Your task to perform on an android device: create a new album in the google photos Image 0: 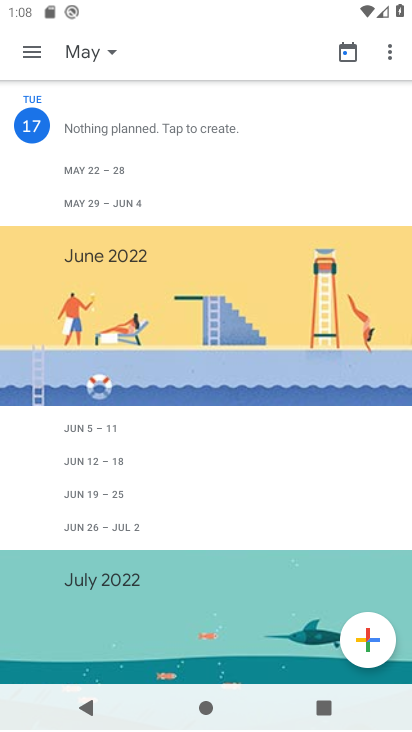
Step 0: press home button
Your task to perform on an android device: create a new album in the google photos Image 1: 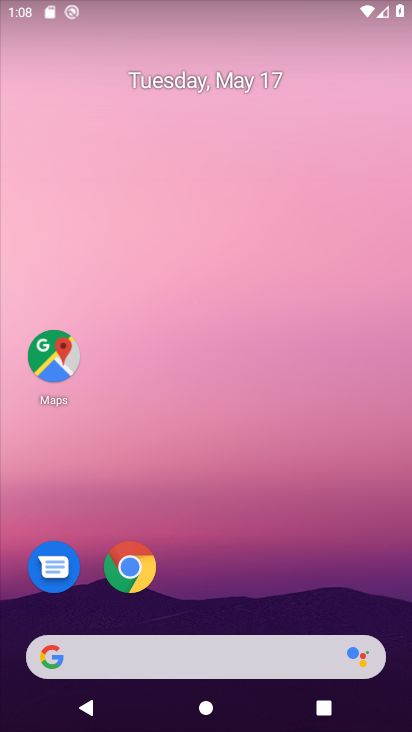
Step 1: drag from (215, 492) to (257, 108)
Your task to perform on an android device: create a new album in the google photos Image 2: 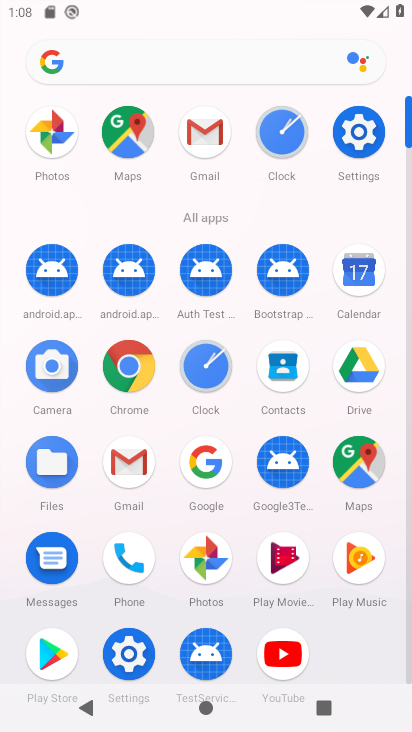
Step 2: click (208, 573)
Your task to perform on an android device: create a new album in the google photos Image 3: 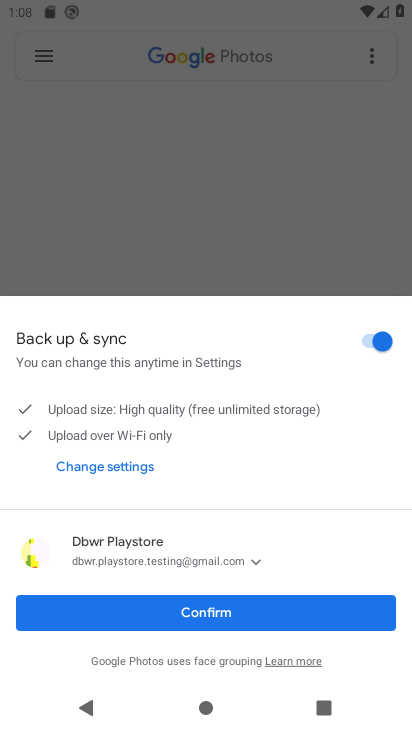
Step 3: click (196, 629)
Your task to perform on an android device: create a new album in the google photos Image 4: 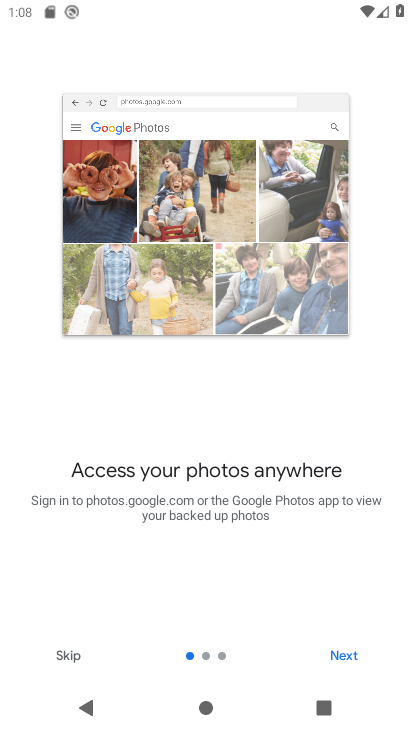
Step 4: click (353, 656)
Your task to perform on an android device: create a new album in the google photos Image 5: 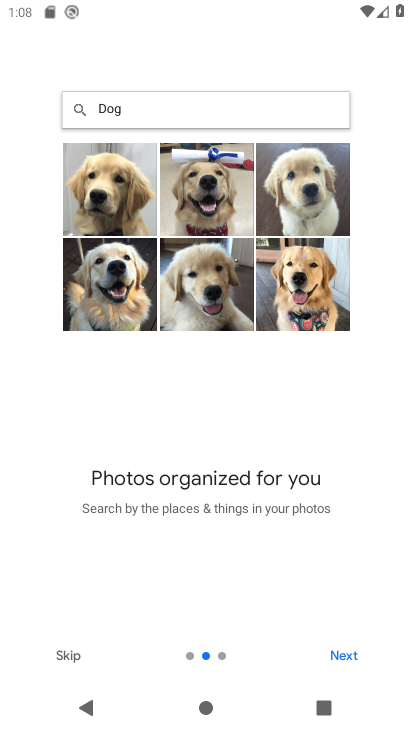
Step 5: click (353, 656)
Your task to perform on an android device: create a new album in the google photos Image 6: 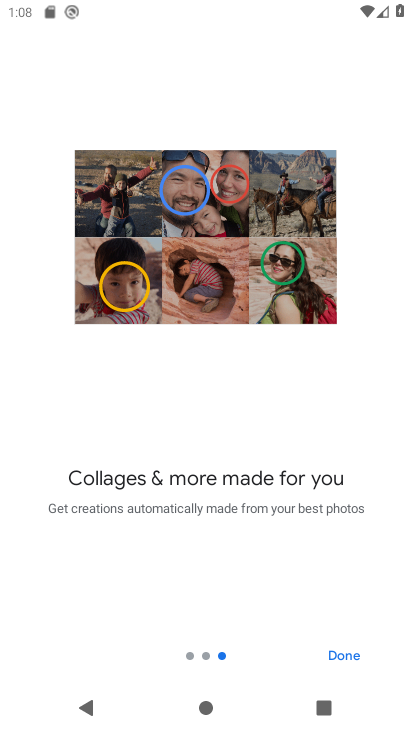
Step 6: click (330, 656)
Your task to perform on an android device: create a new album in the google photos Image 7: 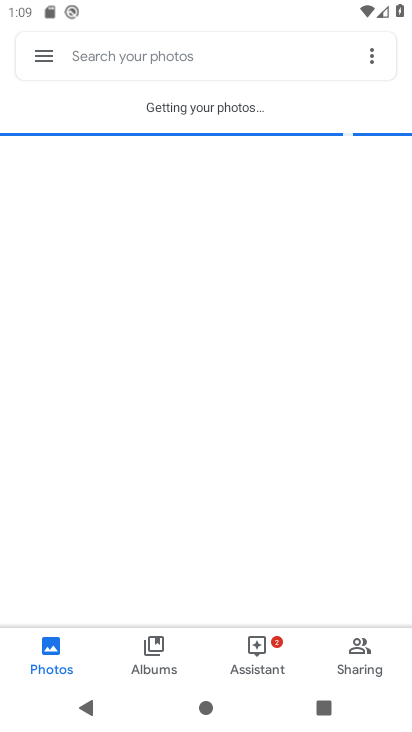
Step 7: click (154, 661)
Your task to perform on an android device: create a new album in the google photos Image 8: 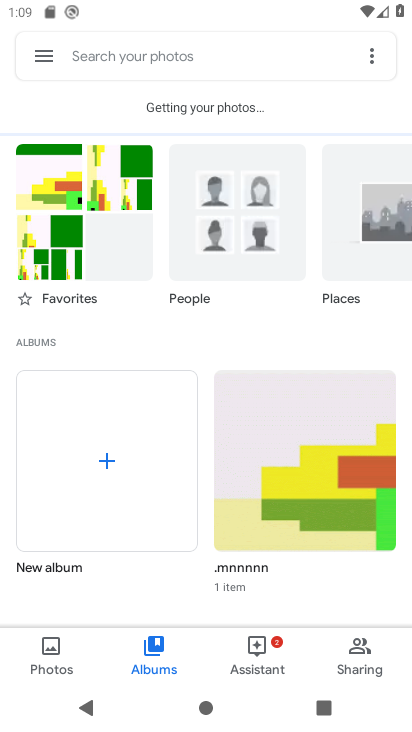
Step 8: click (96, 468)
Your task to perform on an android device: create a new album in the google photos Image 9: 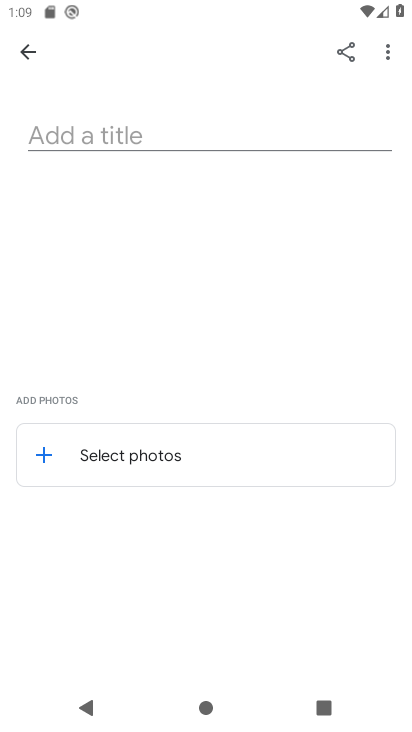
Step 9: click (120, 138)
Your task to perform on an android device: create a new album in the google photos Image 10: 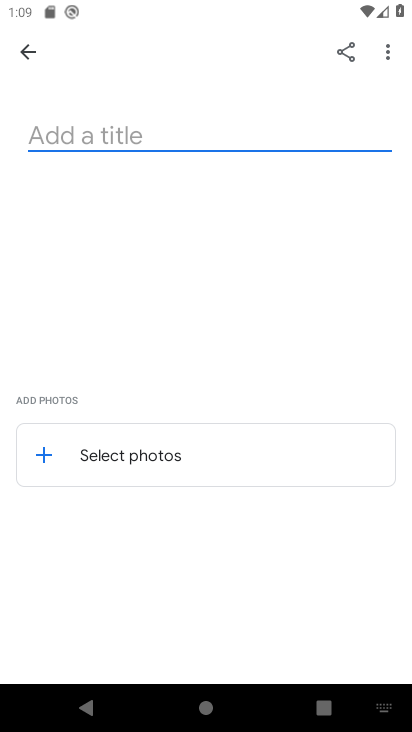
Step 10: type "Ranjhana"
Your task to perform on an android device: create a new album in the google photos Image 11: 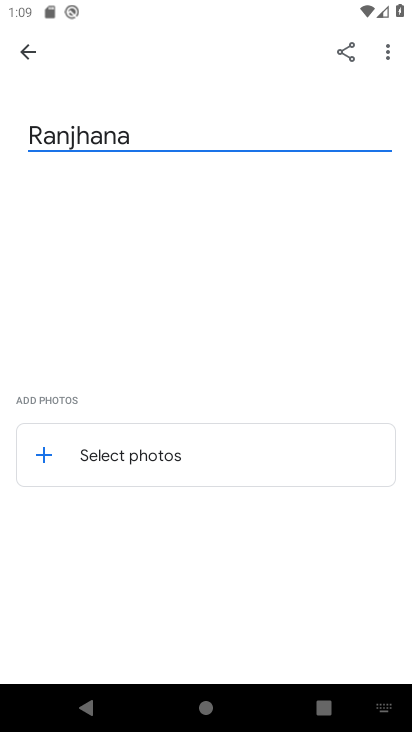
Step 11: click (69, 450)
Your task to perform on an android device: create a new album in the google photos Image 12: 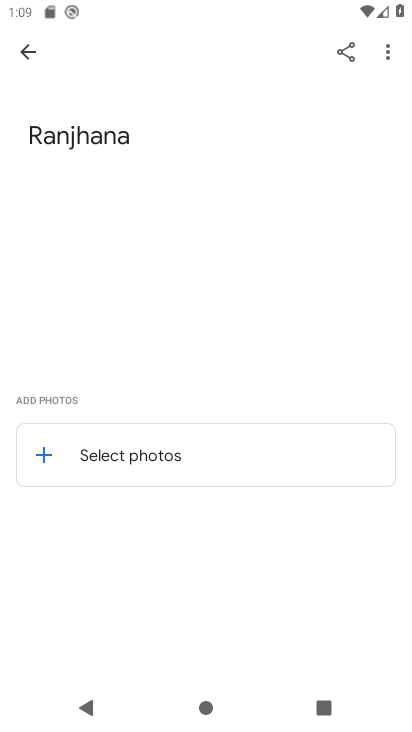
Step 12: click (102, 461)
Your task to perform on an android device: create a new album in the google photos Image 13: 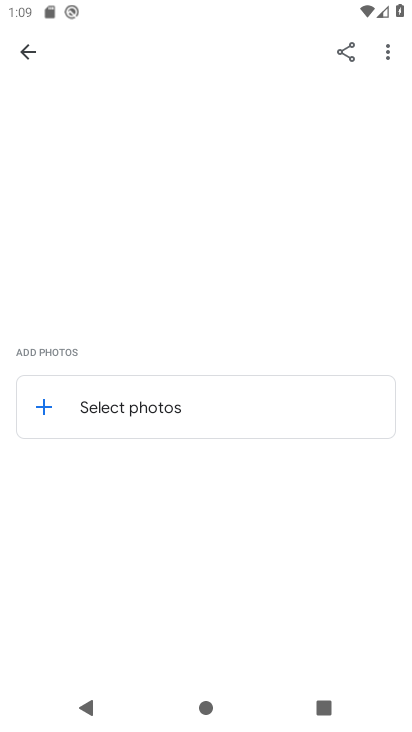
Step 13: click (86, 403)
Your task to perform on an android device: create a new album in the google photos Image 14: 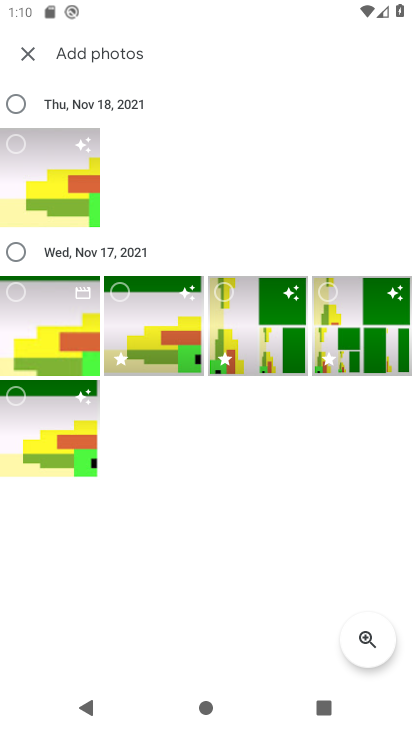
Step 14: click (23, 100)
Your task to perform on an android device: create a new album in the google photos Image 15: 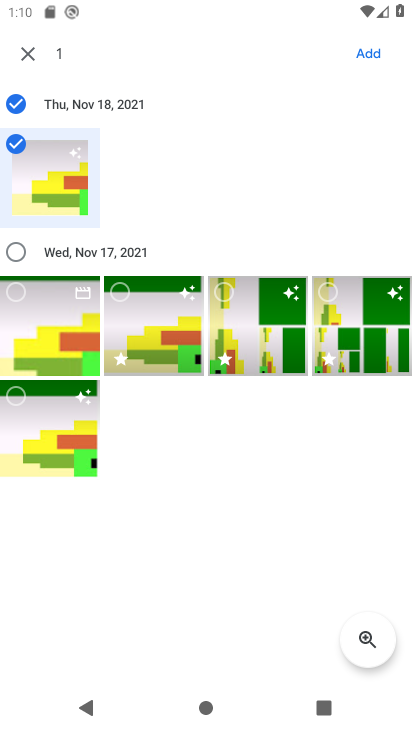
Step 15: click (367, 49)
Your task to perform on an android device: create a new album in the google photos Image 16: 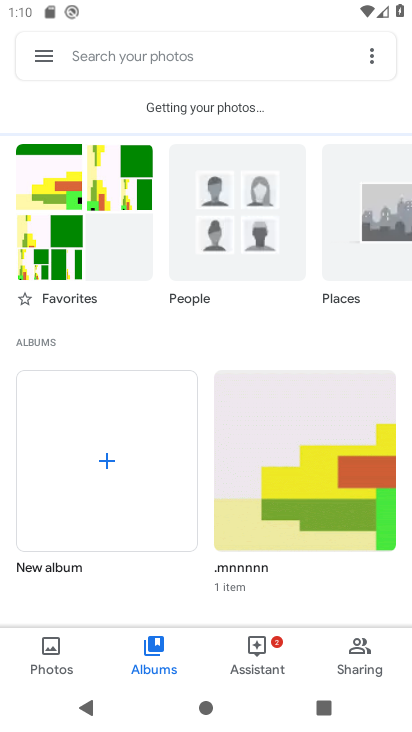
Step 16: task complete